Your task to perform on an android device: empty trash in the gmail app Image 0: 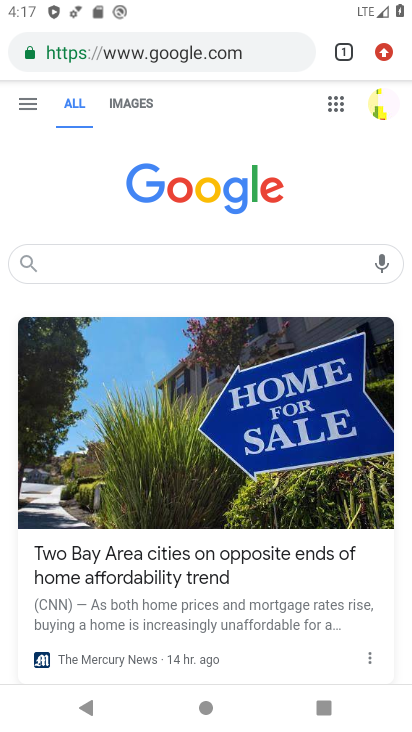
Step 0: press back button
Your task to perform on an android device: empty trash in the gmail app Image 1: 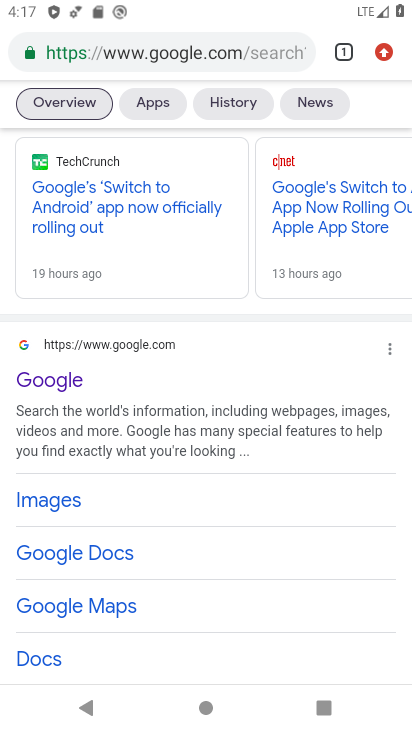
Step 1: press back button
Your task to perform on an android device: empty trash in the gmail app Image 2: 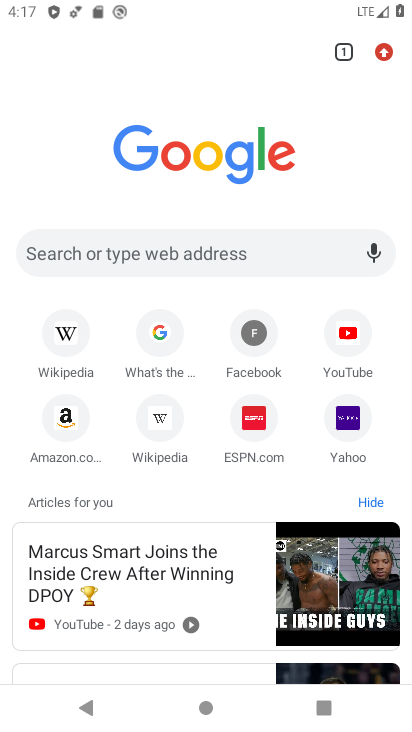
Step 2: press back button
Your task to perform on an android device: empty trash in the gmail app Image 3: 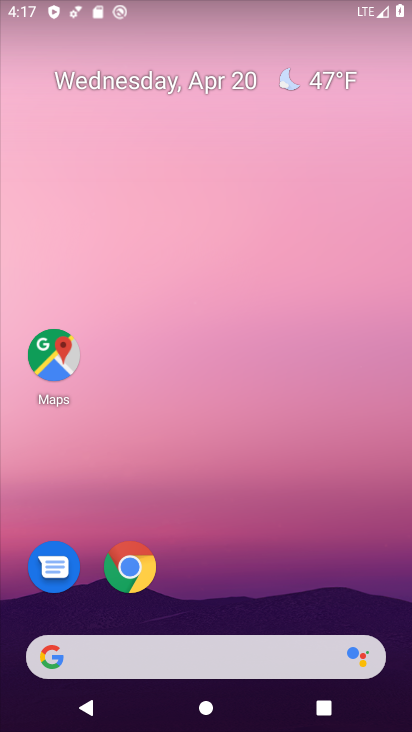
Step 3: drag from (297, 552) to (281, 57)
Your task to perform on an android device: empty trash in the gmail app Image 4: 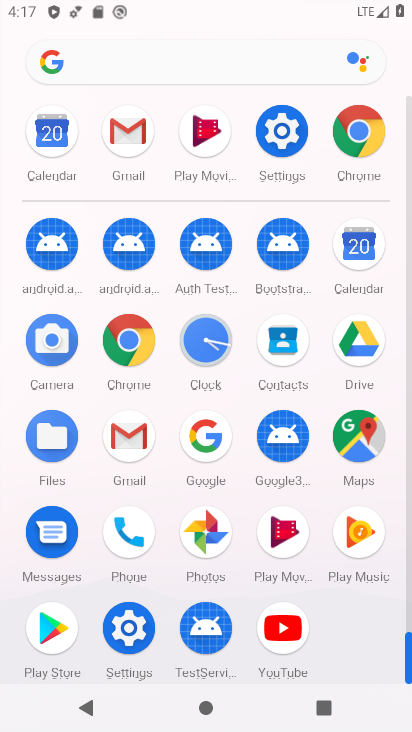
Step 4: click (125, 428)
Your task to perform on an android device: empty trash in the gmail app Image 5: 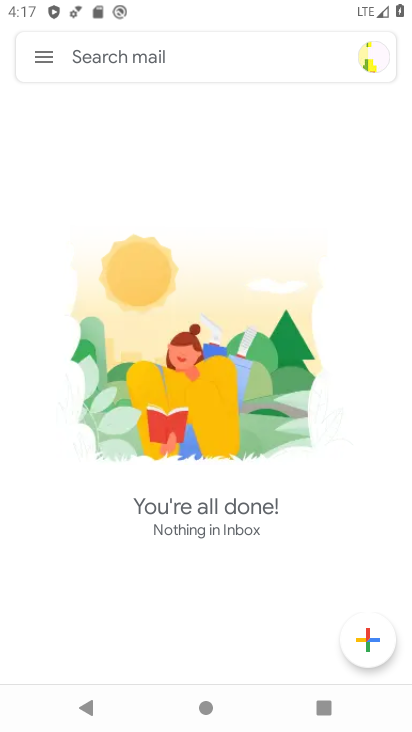
Step 5: click (35, 58)
Your task to perform on an android device: empty trash in the gmail app Image 6: 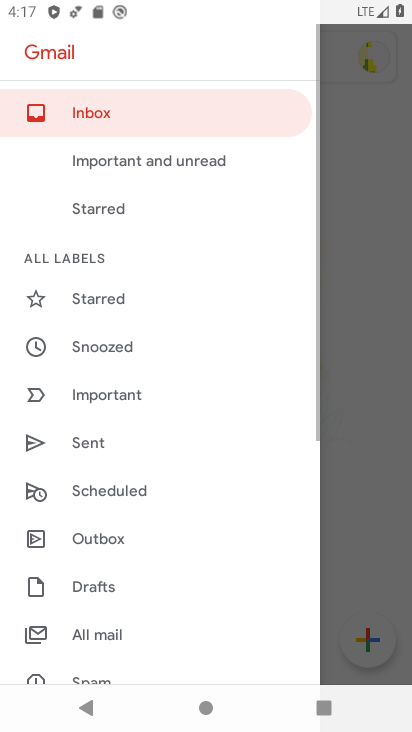
Step 6: drag from (162, 658) to (251, 114)
Your task to perform on an android device: empty trash in the gmail app Image 7: 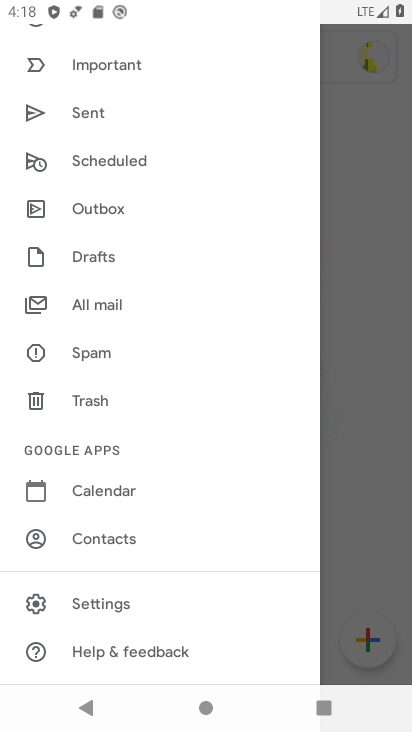
Step 7: click (89, 390)
Your task to perform on an android device: empty trash in the gmail app Image 8: 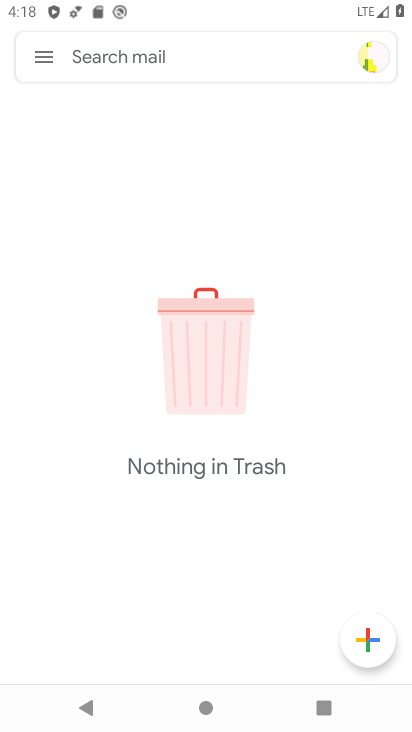
Step 8: task complete